Your task to perform on an android device: Show me recent news Image 0: 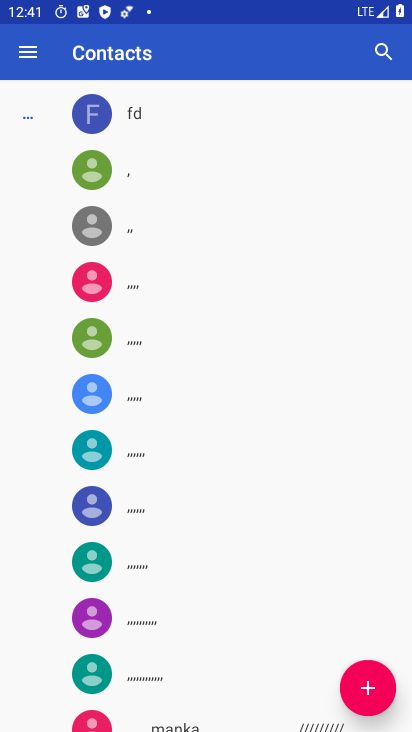
Step 0: press home button
Your task to perform on an android device: Show me recent news Image 1: 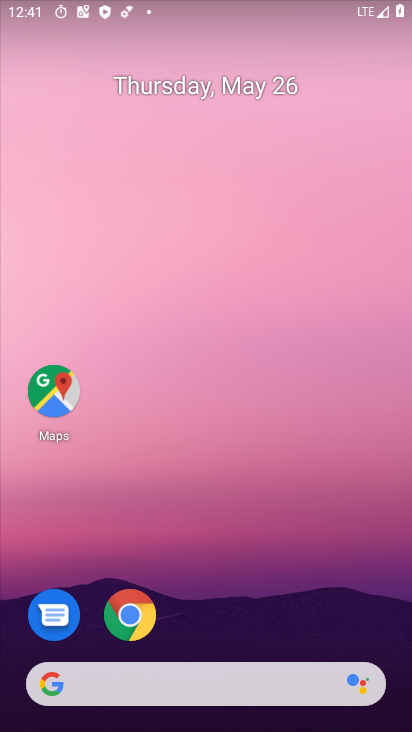
Step 1: click (197, 687)
Your task to perform on an android device: Show me recent news Image 2: 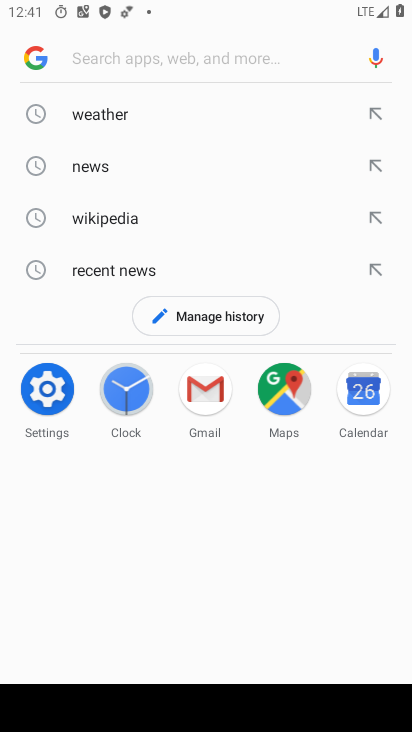
Step 2: click (123, 265)
Your task to perform on an android device: Show me recent news Image 3: 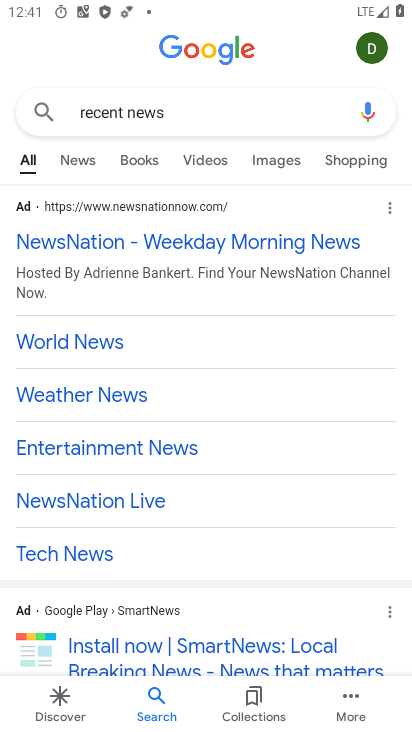
Step 3: click (239, 241)
Your task to perform on an android device: Show me recent news Image 4: 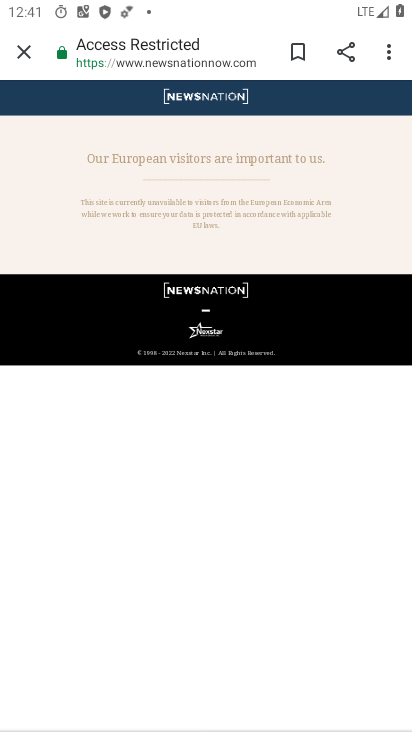
Step 4: task complete